Your task to perform on an android device: empty trash in the gmail app Image 0: 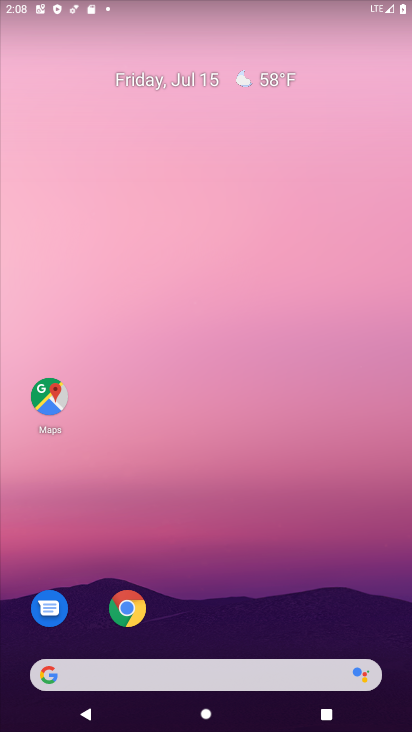
Step 0: drag from (221, 613) to (227, 77)
Your task to perform on an android device: empty trash in the gmail app Image 1: 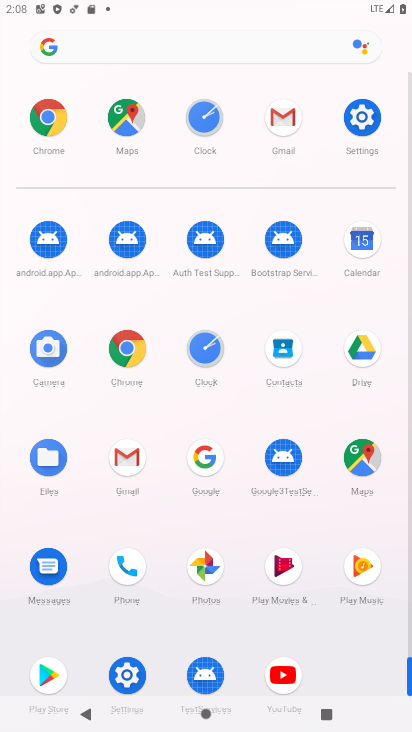
Step 1: click (121, 465)
Your task to perform on an android device: empty trash in the gmail app Image 2: 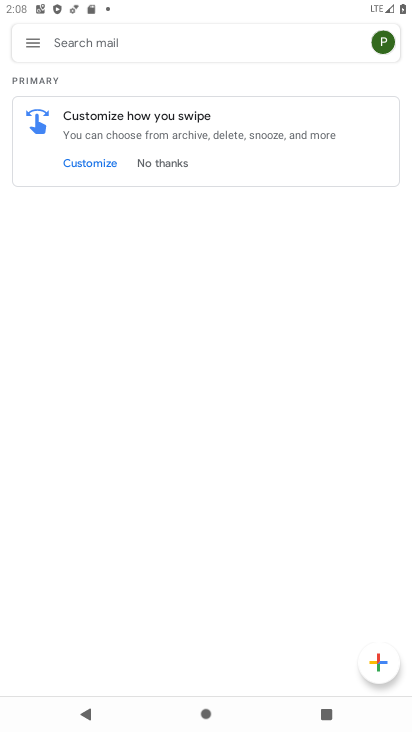
Step 2: click (21, 38)
Your task to perform on an android device: empty trash in the gmail app Image 3: 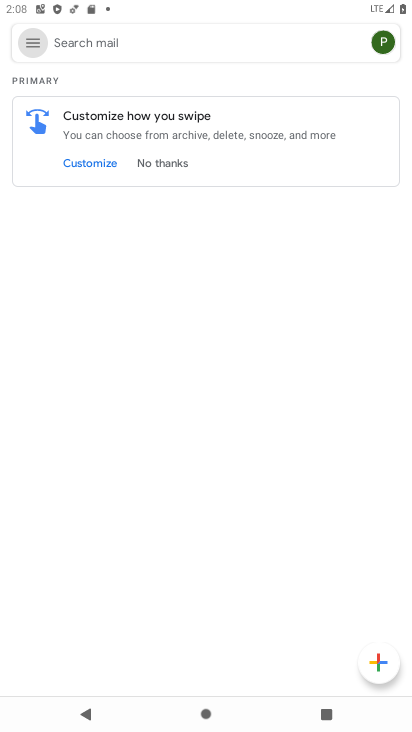
Step 3: drag from (21, 38) to (70, 539)
Your task to perform on an android device: empty trash in the gmail app Image 4: 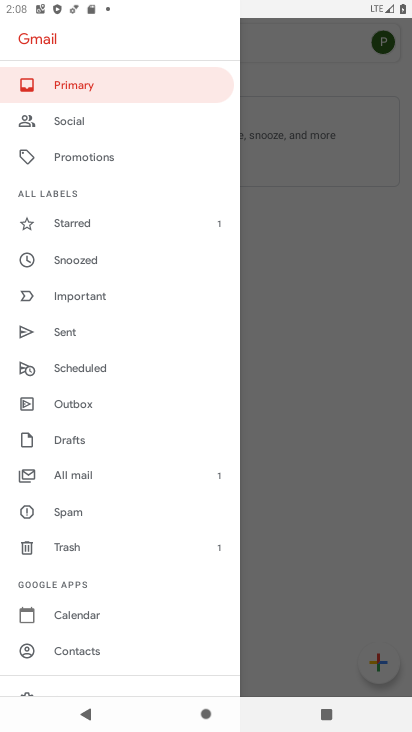
Step 4: click (70, 539)
Your task to perform on an android device: empty trash in the gmail app Image 5: 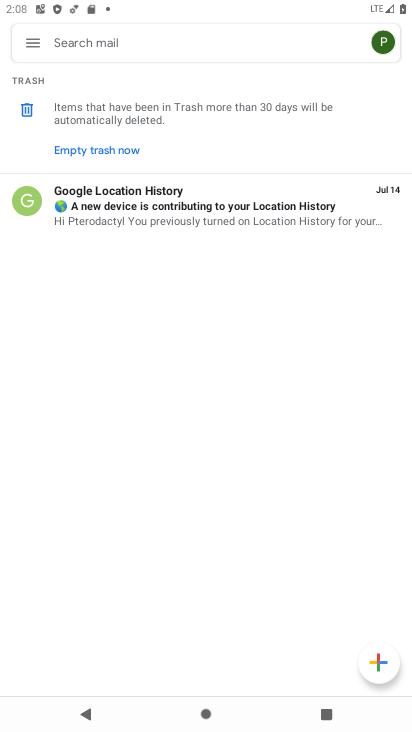
Step 5: click (26, 192)
Your task to perform on an android device: empty trash in the gmail app Image 6: 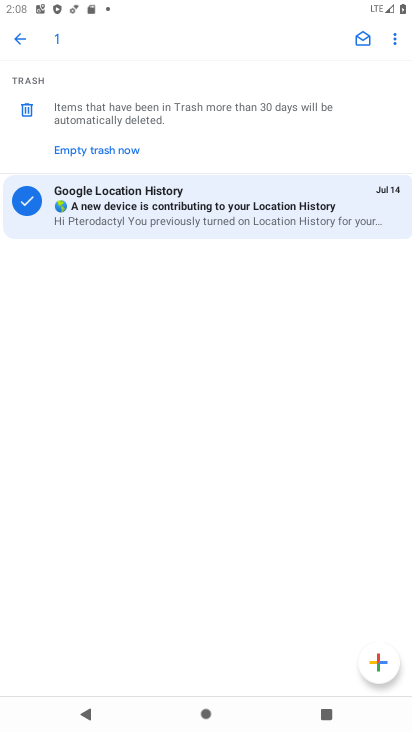
Step 6: click (22, 103)
Your task to perform on an android device: empty trash in the gmail app Image 7: 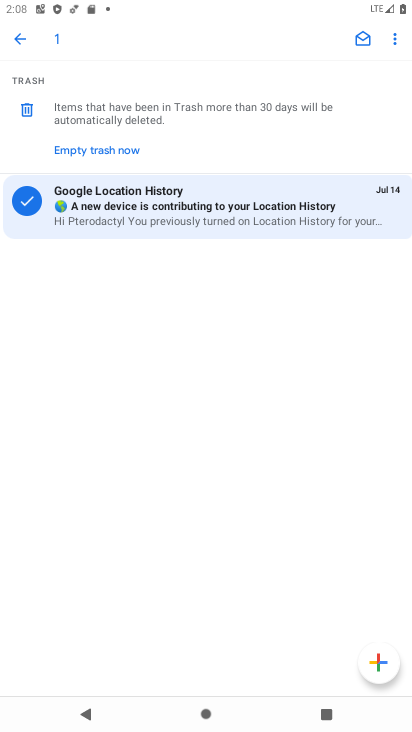
Step 7: click (396, 39)
Your task to perform on an android device: empty trash in the gmail app Image 8: 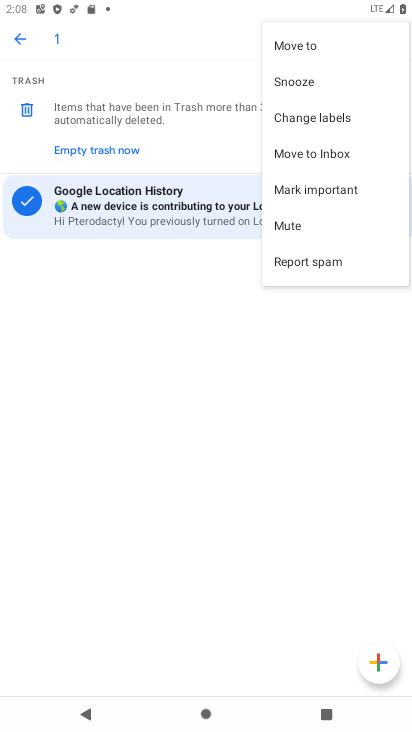
Step 8: click (118, 336)
Your task to perform on an android device: empty trash in the gmail app Image 9: 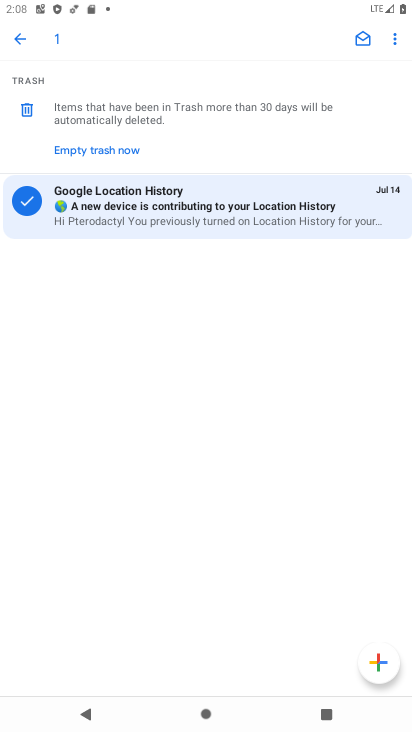
Step 9: click (383, 37)
Your task to perform on an android device: empty trash in the gmail app Image 10: 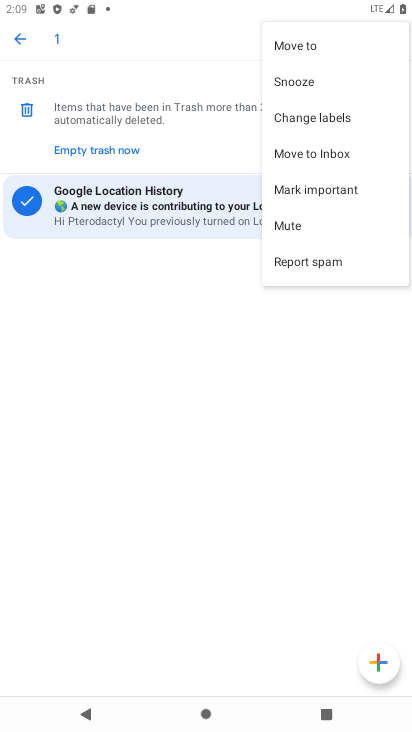
Step 10: click (127, 314)
Your task to perform on an android device: empty trash in the gmail app Image 11: 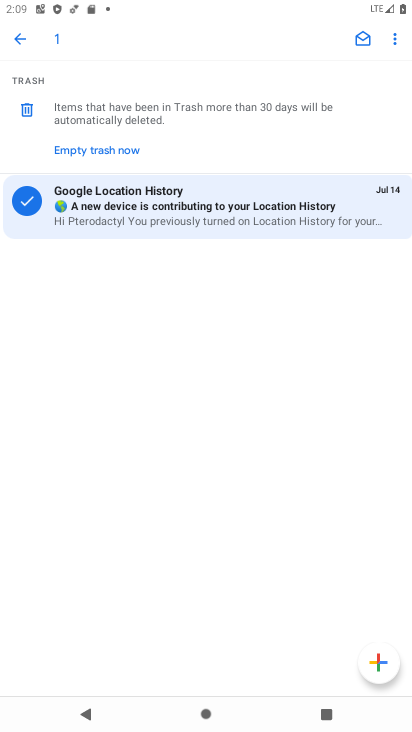
Step 11: click (127, 314)
Your task to perform on an android device: empty trash in the gmail app Image 12: 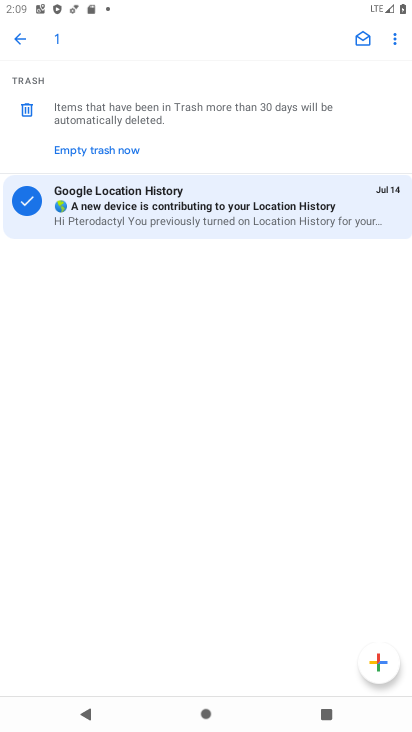
Step 12: click (127, 314)
Your task to perform on an android device: empty trash in the gmail app Image 13: 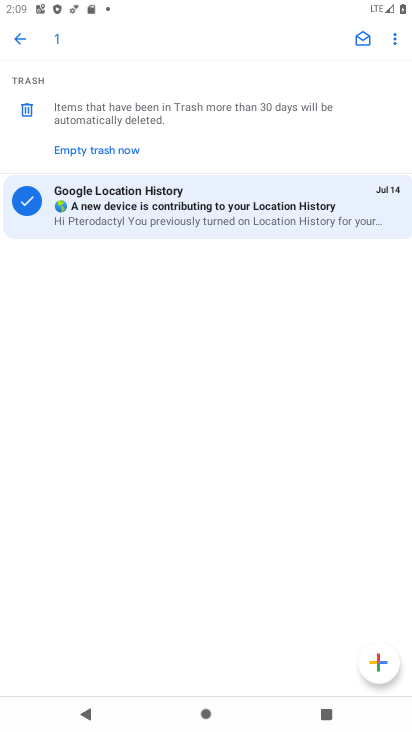
Step 13: click (141, 202)
Your task to perform on an android device: empty trash in the gmail app Image 14: 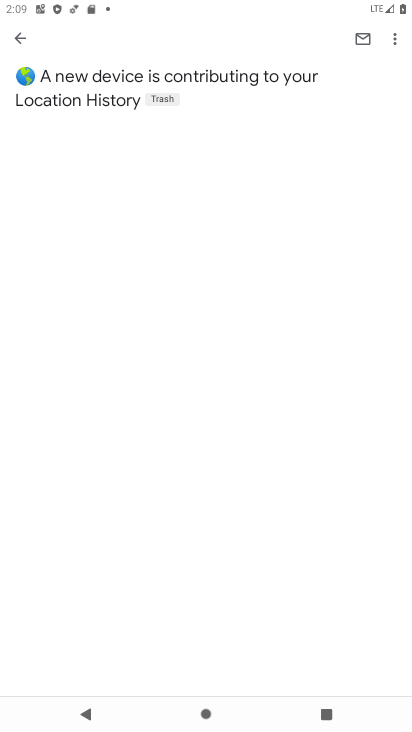
Step 14: click (157, 105)
Your task to perform on an android device: empty trash in the gmail app Image 15: 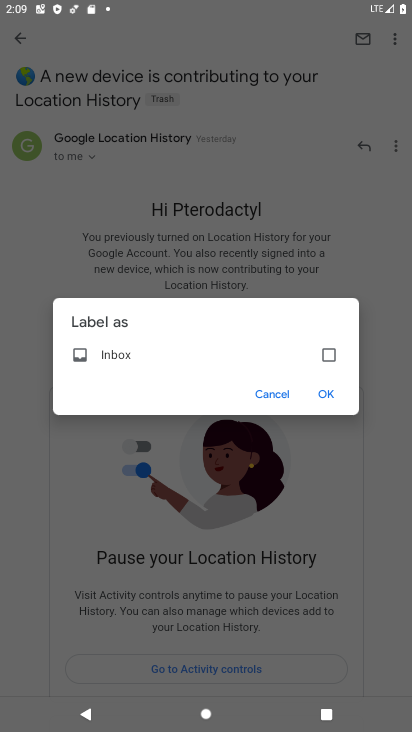
Step 15: click (321, 348)
Your task to perform on an android device: empty trash in the gmail app Image 16: 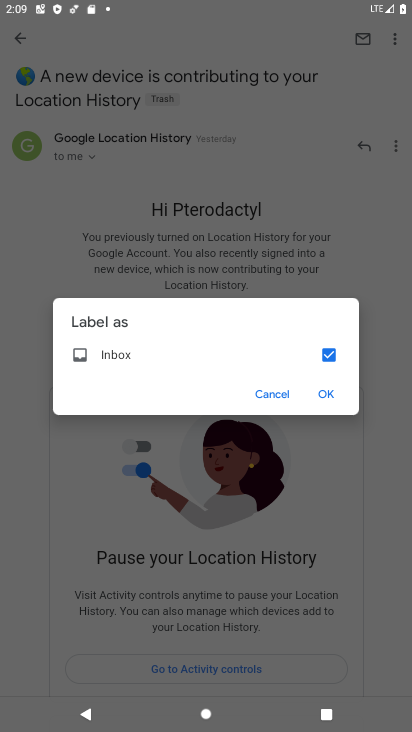
Step 16: click (321, 394)
Your task to perform on an android device: empty trash in the gmail app Image 17: 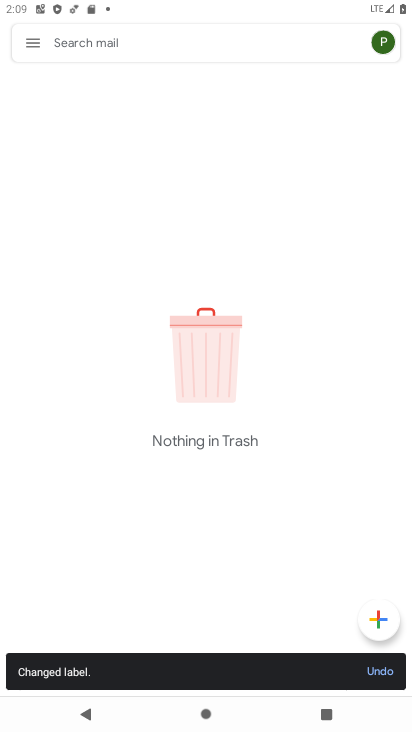
Step 17: task complete